Your task to perform on an android device: Open privacy settings Image 0: 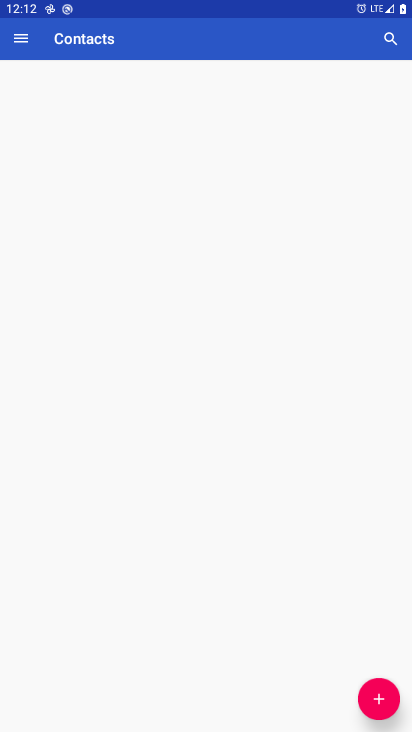
Step 0: press home button
Your task to perform on an android device: Open privacy settings Image 1: 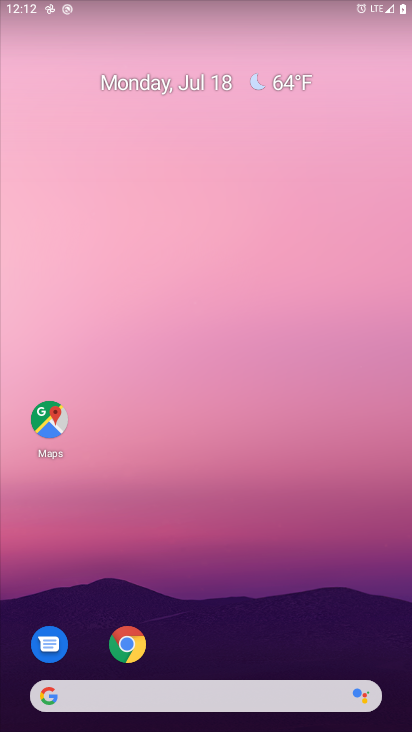
Step 1: drag from (248, 601) to (339, 27)
Your task to perform on an android device: Open privacy settings Image 2: 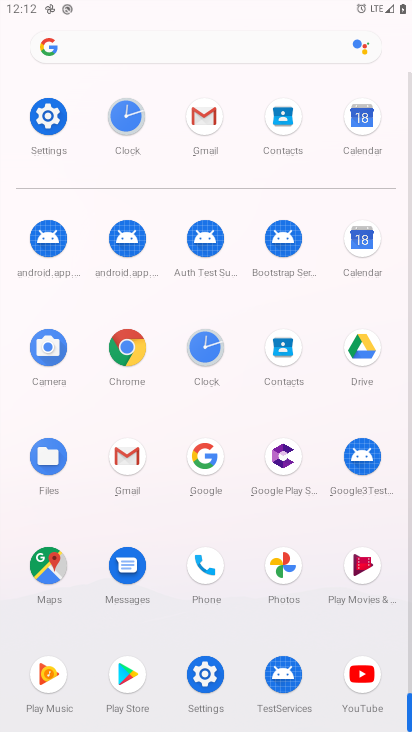
Step 2: click (42, 111)
Your task to perform on an android device: Open privacy settings Image 3: 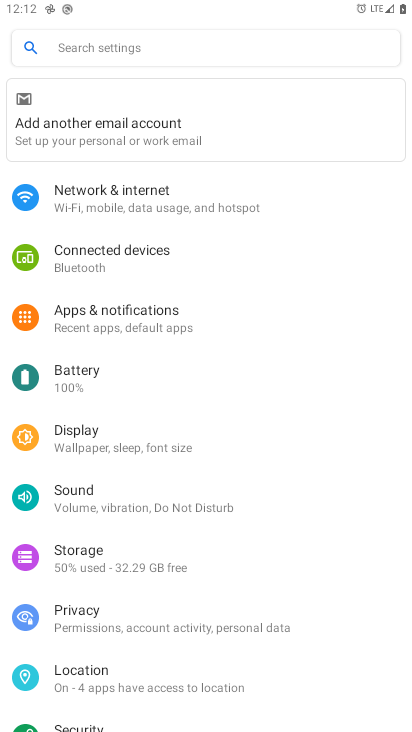
Step 3: click (151, 611)
Your task to perform on an android device: Open privacy settings Image 4: 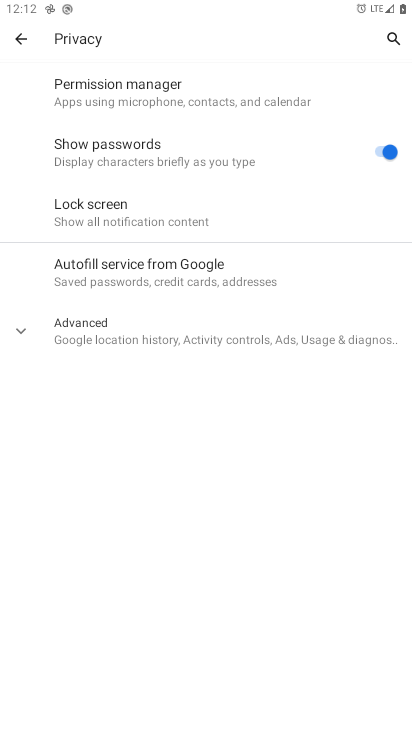
Step 4: task complete